Your task to perform on an android device: change keyboard looks Image 0: 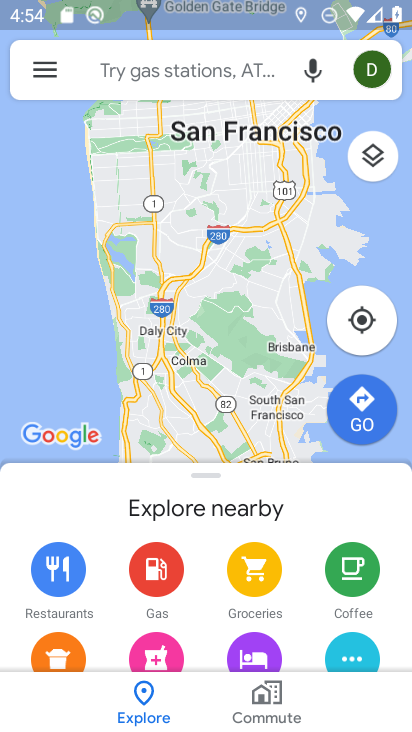
Step 0: press home button
Your task to perform on an android device: change keyboard looks Image 1: 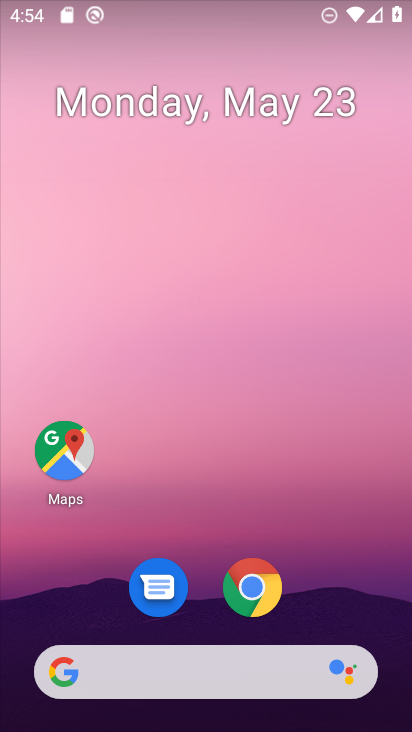
Step 1: drag from (201, 600) to (205, 193)
Your task to perform on an android device: change keyboard looks Image 2: 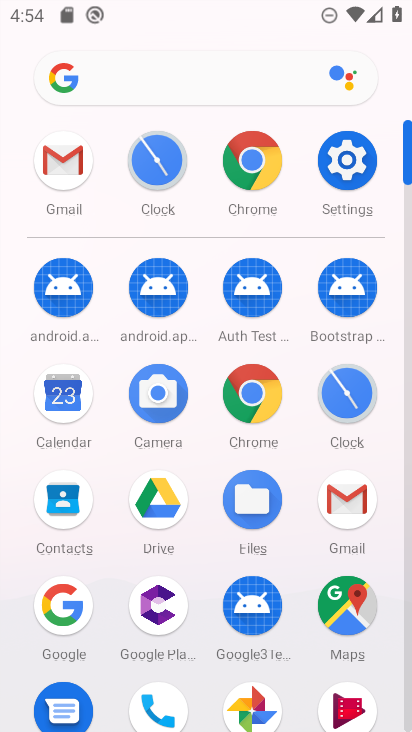
Step 2: click (329, 175)
Your task to perform on an android device: change keyboard looks Image 3: 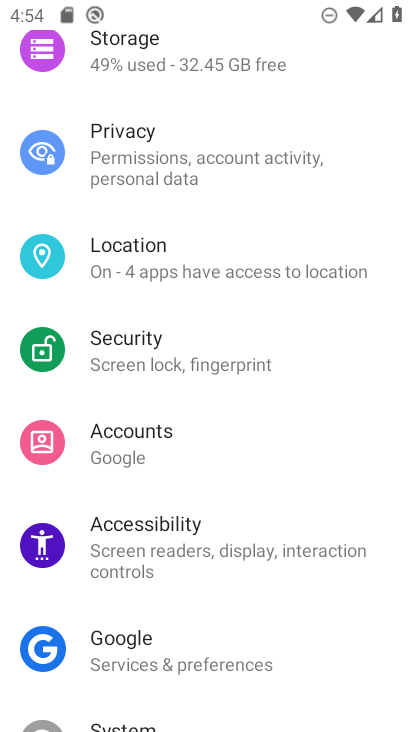
Step 3: drag from (169, 664) to (219, 297)
Your task to perform on an android device: change keyboard looks Image 4: 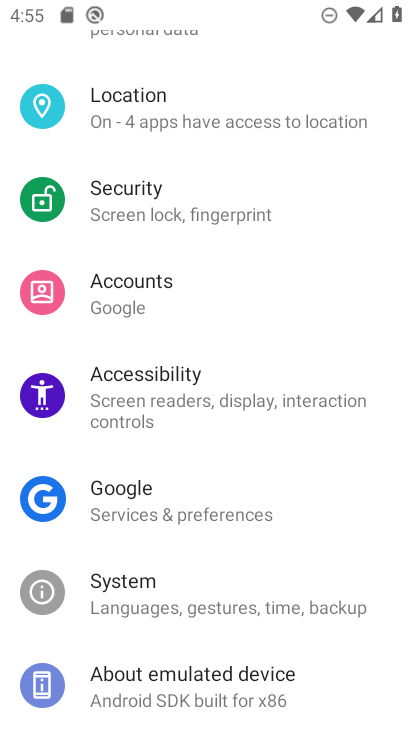
Step 4: click (172, 594)
Your task to perform on an android device: change keyboard looks Image 5: 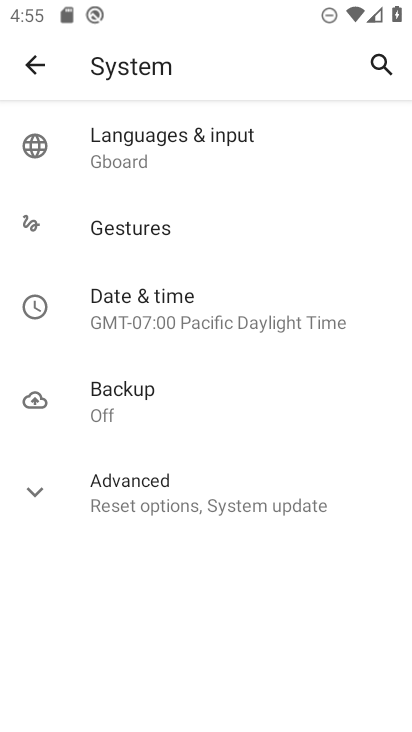
Step 5: click (174, 146)
Your task to perform on an android device: change keyboard looks Image 6: 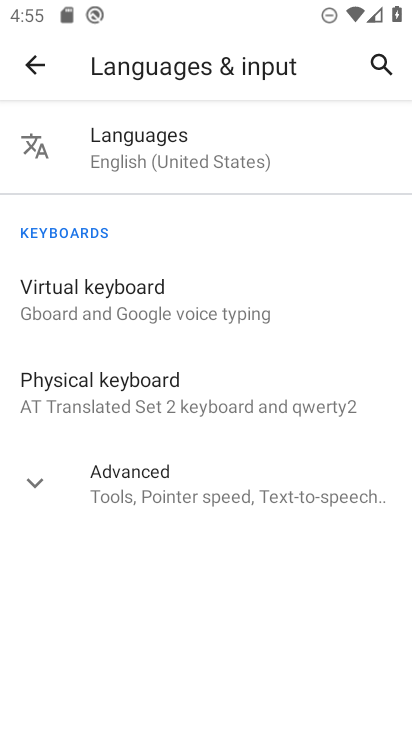
Step 6: click (149, 308)
Your task to perform on an android device: change keyboard looks Image 7: 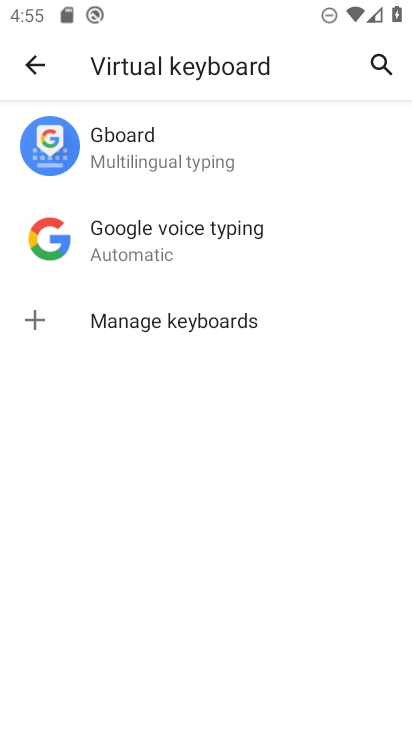
Step 7: click (152, 151)
Your task to perform on an android device: change keyboard looks Image 8: 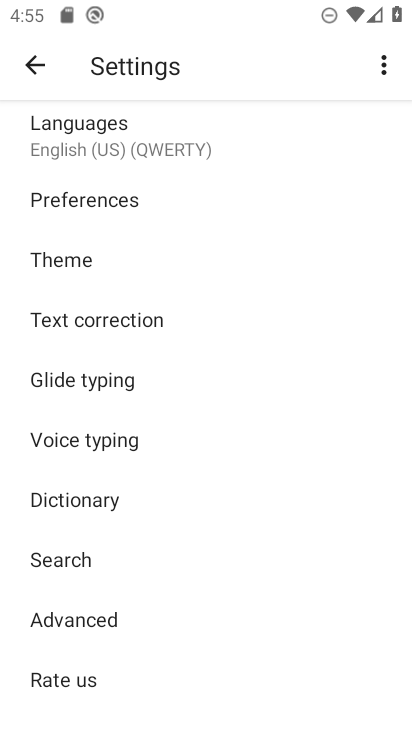
Step 8: click (94, 261)
Your task to perform on an android device: change keyboard looks Image 9: 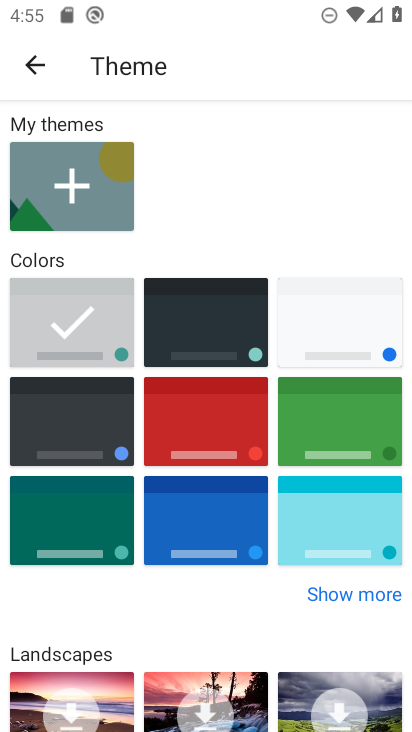
Step 9: click (197, 321)
Your task to perform on an android device: change keyboard looks Image 10: 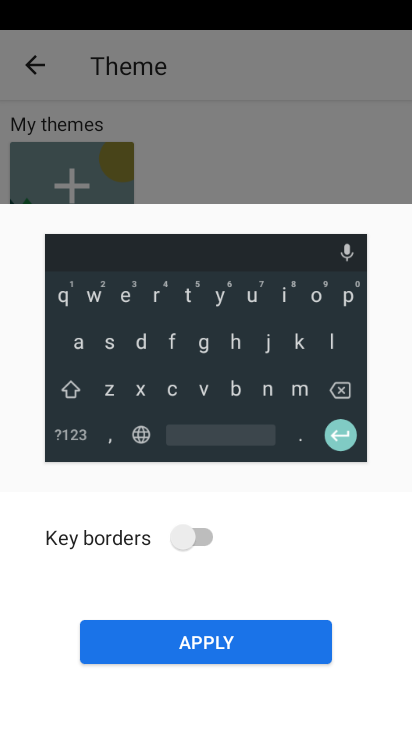
Step 10: click (203, 631)
Your task to perform on an android device: change keyboard looks Image 11: 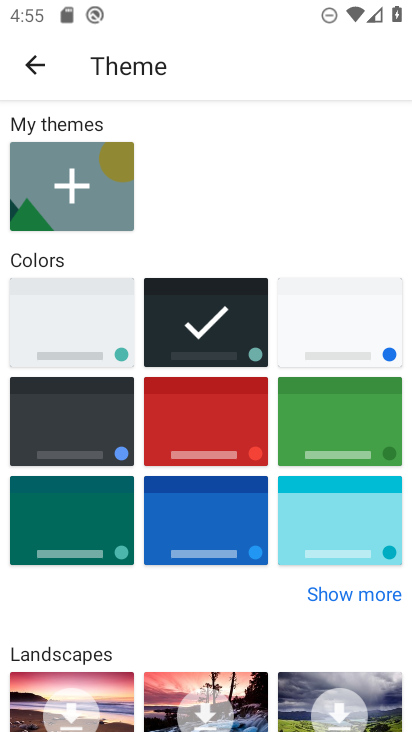
Step 11: task complete